Your task to perform on an android device: What is the news today? Image 0: 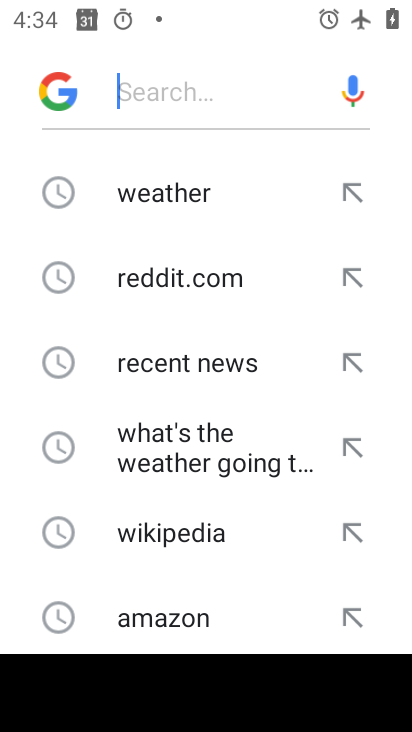
Step 0: press home button
Your task to perform on an android device: What is the news today? Image 1: 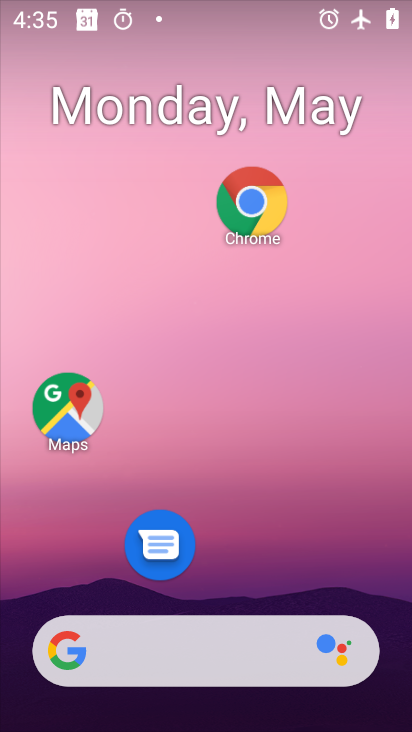
Step 1: drag from (222, 594) to (215, 182)
Your task to perform on an android device: What is the news today? Image 2: 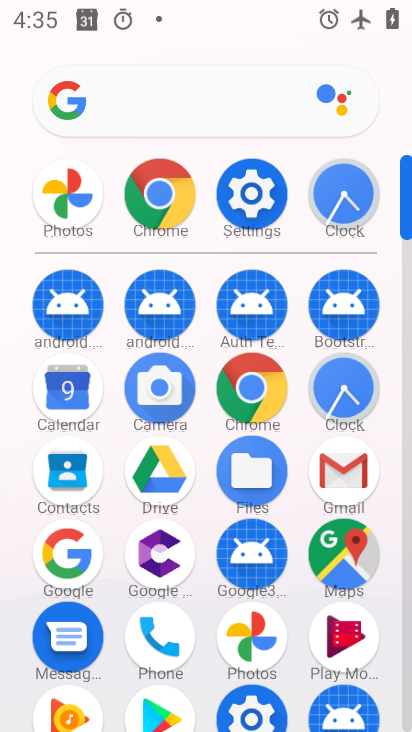
Step 2: click (81, 561)
Your task to perform on an android device: What is the news today? Image 3: 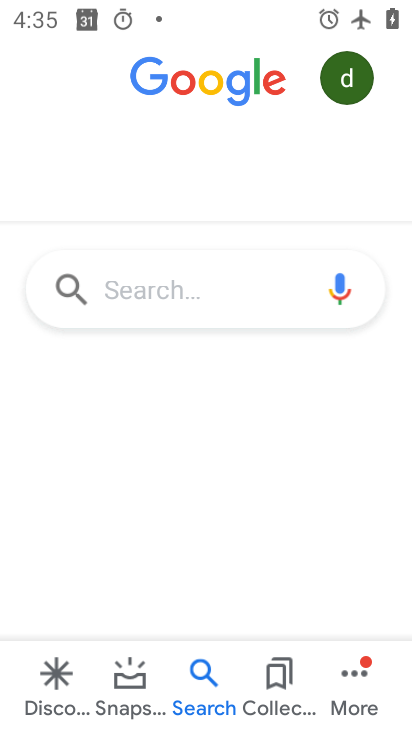
Step 3: click (218, 283)
Your task to perform on an android device: What is the news today? Image 4: 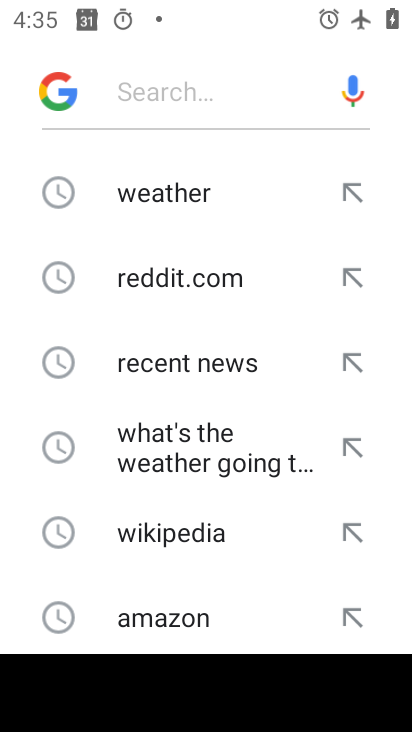
Step 4: type "news today"
Your task to perform on an android device: What is the news today? Image 5: 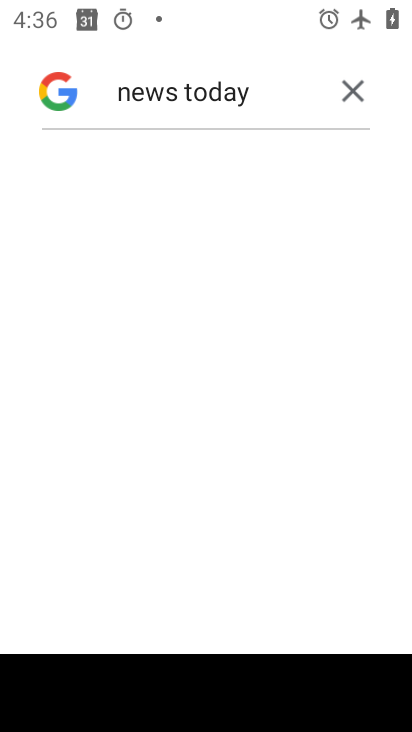
Step 5: task complete